Your task to perform on an android device: turn off improve location accuracy Image 0: 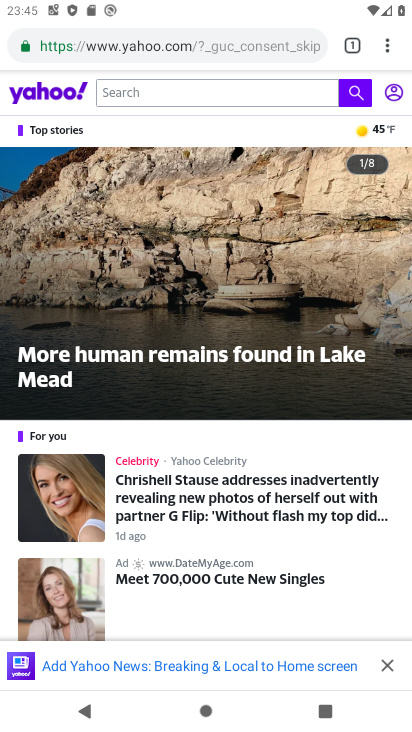
Step 0: press home button
Your task to perform on an android device: turn off improve location accuracy Image 1: 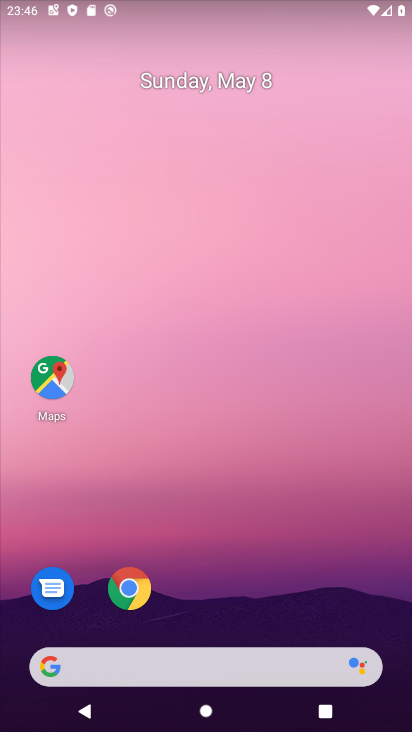
Step 1: drag from (220, 553) to (129, 52)
Your task to perform on an android device: turn off improve location accuracy Image 2: 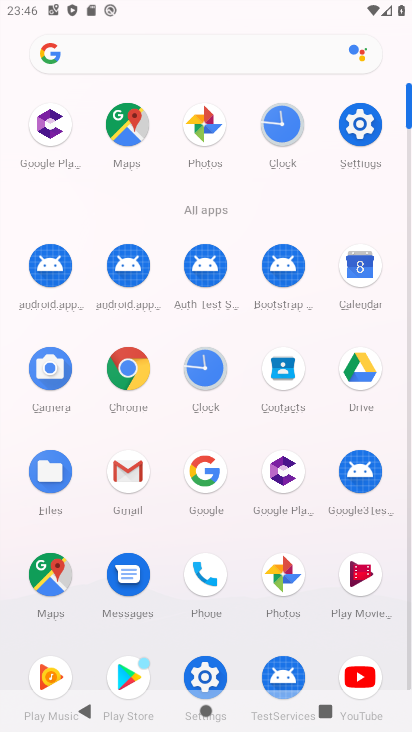
Step 2: click (359, 125)
Your task to perform on an android device: turn off improve location accuracy Image 3: 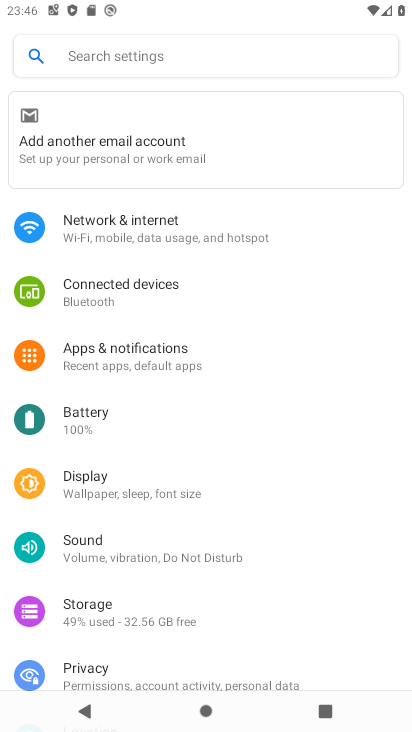
Step 3: drag from (162, 608) to (94, 308)
Your task to perform on an android device: turn off improve location accuracy Image 4: 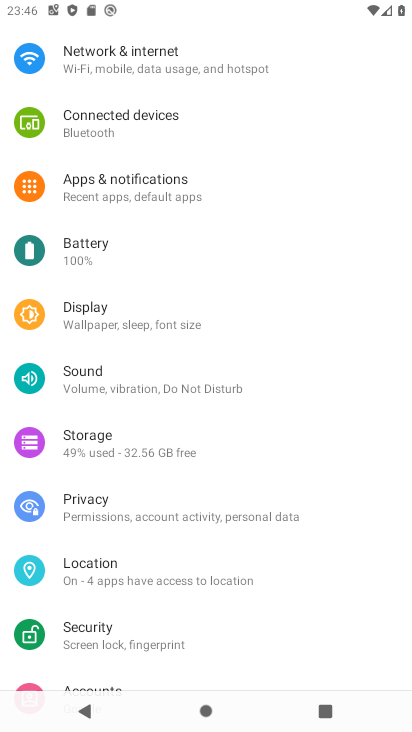
Step 4: click (87, 564)
Your task to perform on an android device: turn off improve location accuracy Image 5: 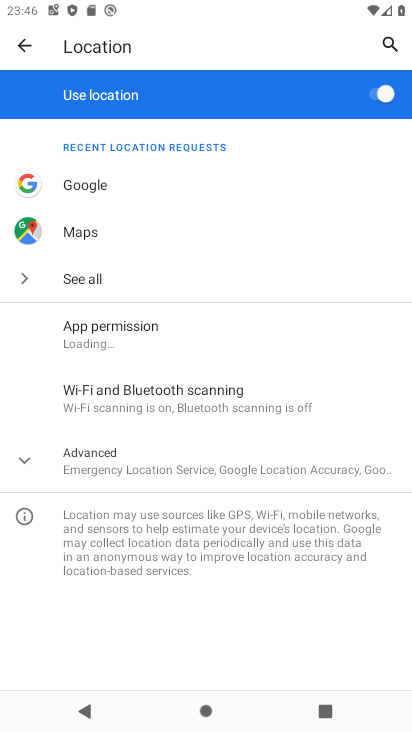
Step 5: click (63, 460)
Your task to perform on an android device: turn off improve location accuracy Image 6: 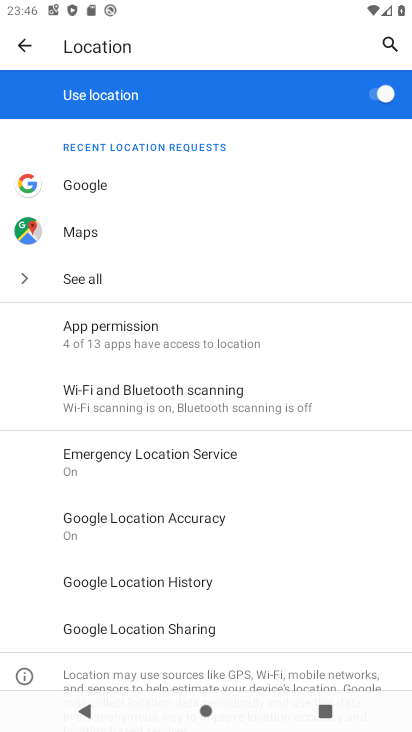
Step 6: click (162, 516)
Your task to perform on an android device: turn off improve location accuracy Image 7: 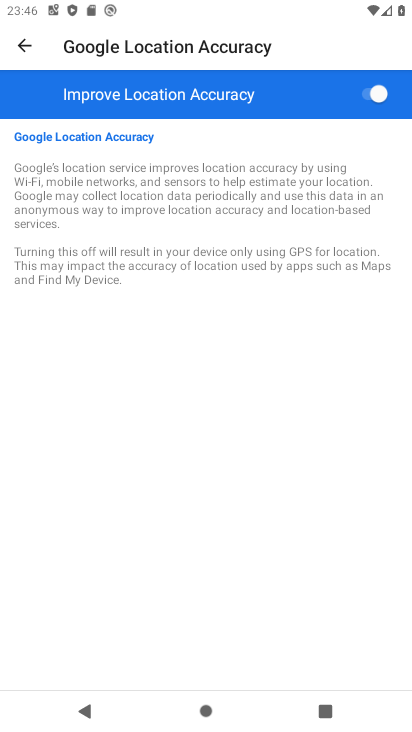
Step 7: click (369, 96)
Your task to perform on an android device: turn off improve location accuracy Image 8: 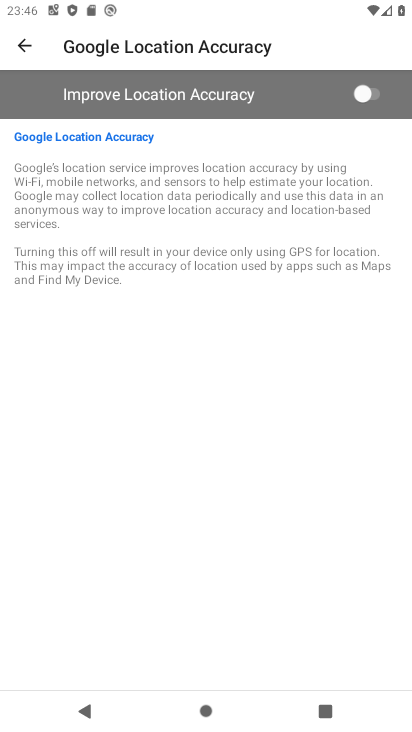
Step 8: task complete